Your task to perform on an android device: What's the weather going to be tomorrow? Image 0: 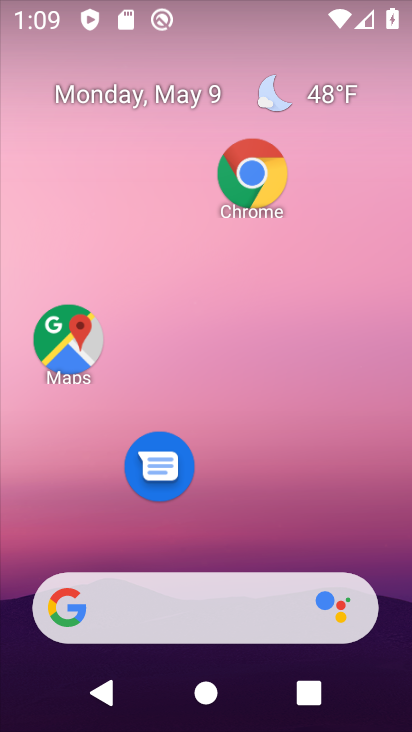
Step 0: drag from (217, 535) to (222, 121)
Your task to perform on an android device: What's the weather going to be tomorrow? Image 1: 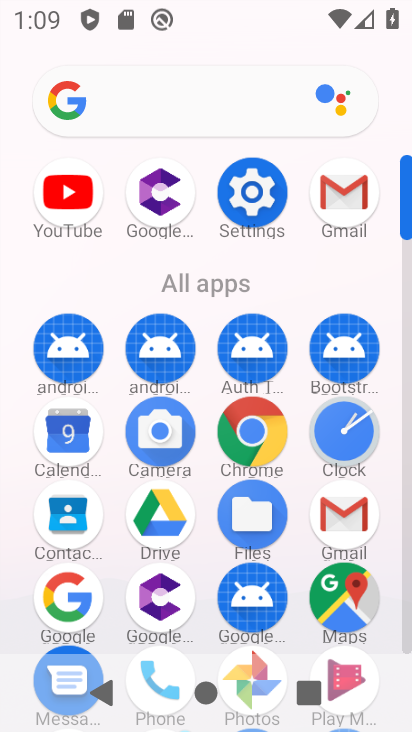
Step 1: click (84, 602)
Your task to perform on an android device: What's the weather going to be tomorrow? Image 2: 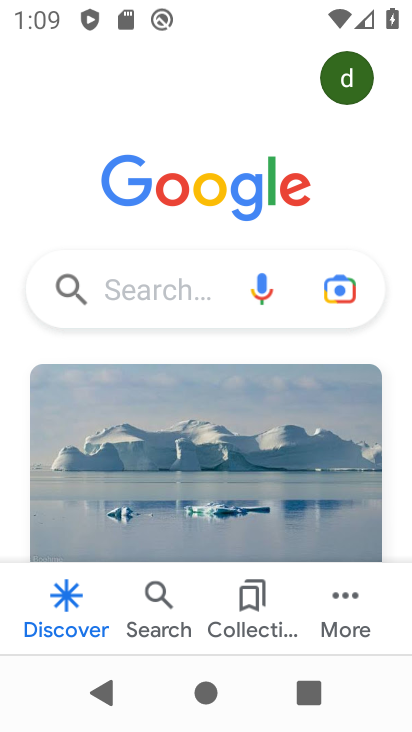
Step 2: click (166, 286)
Your task to perform on an android device: What's the weather going to be tomorrow? Image 3: 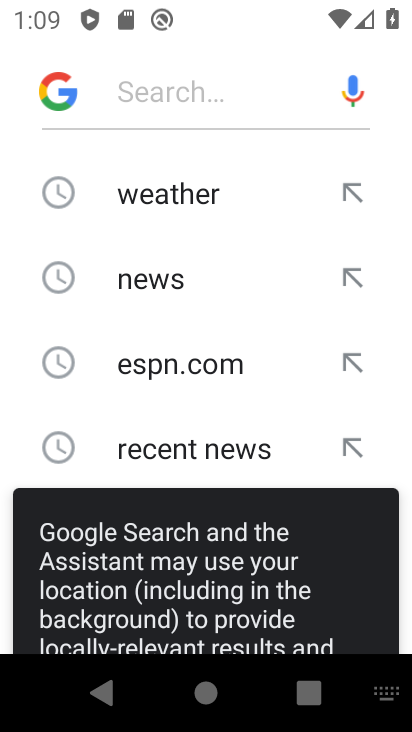
Step 3: click (169, 182)
Your task to perform on an android device: What's the weather going to be tomorrow? Image 4: 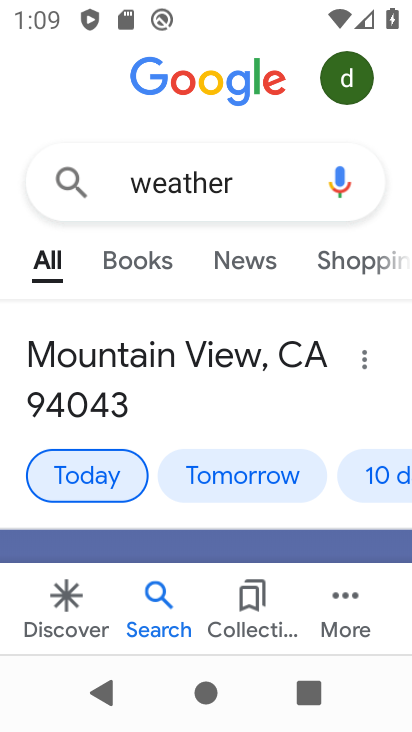
Step 4: click (229, 487)
Your task to perform on an android device: What's the weather going to be tomorrow? Image 5: 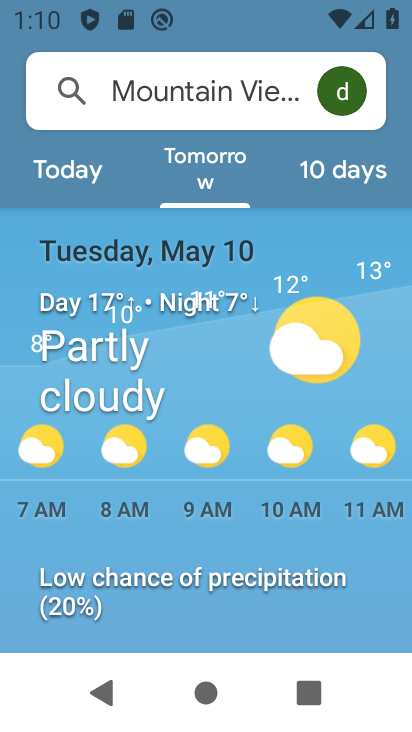
Step 5: task complete